Your task to perform on an android device: toggle wifi Image 0: 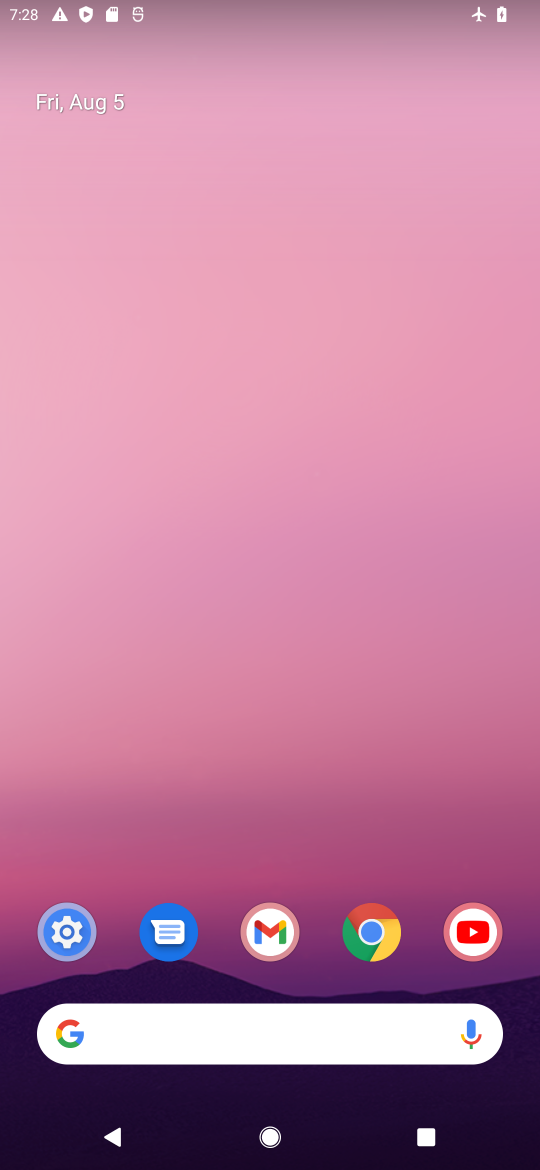
Step 0: drag from (216, 1048) to (227, 166)
Your task to perform on an android device: toggle wifi Image 1: 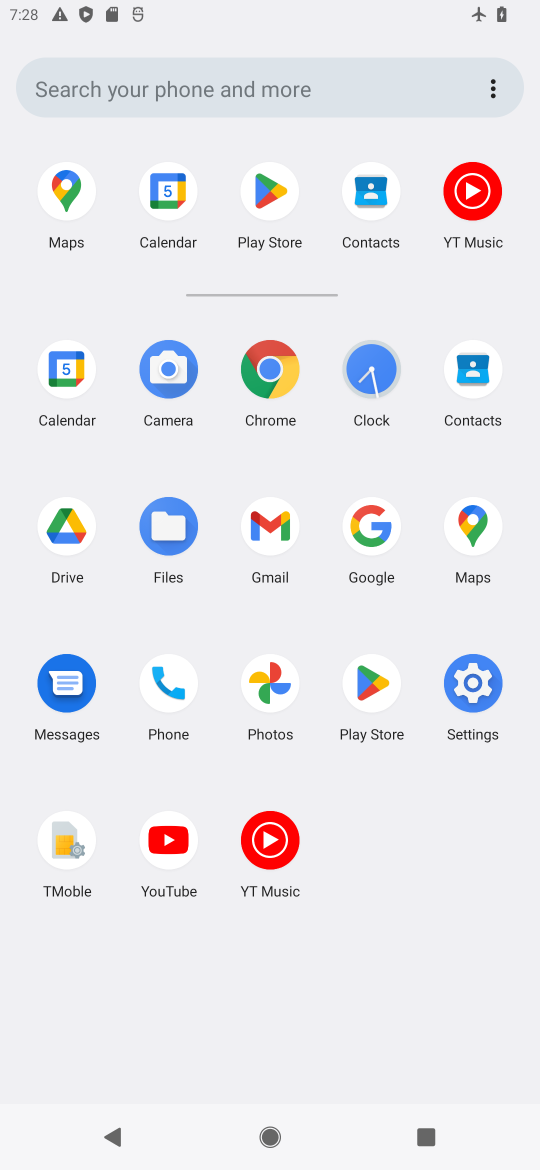
Step 1: click (474, 682)
Your task to perform on an android device: toggle wifi Image 2: 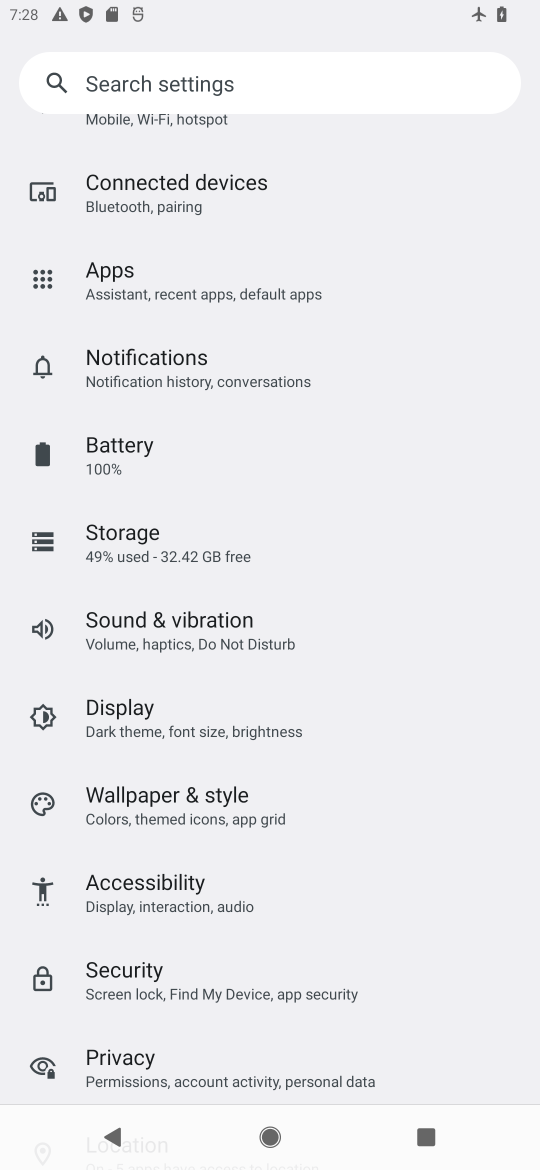
Step 2: drag from (262, 214) to (236, 759)
Your task to perform on an android device: toggle wifi Image 3: 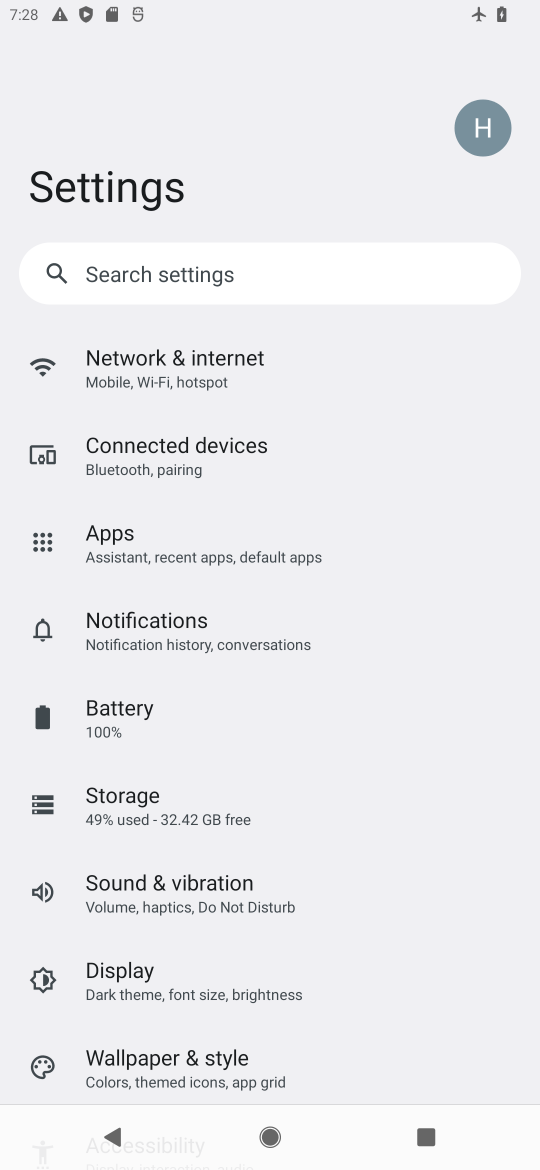
Step 3: click (201, 362)
Your task to perform on an android device: toggle wifi Image 4: 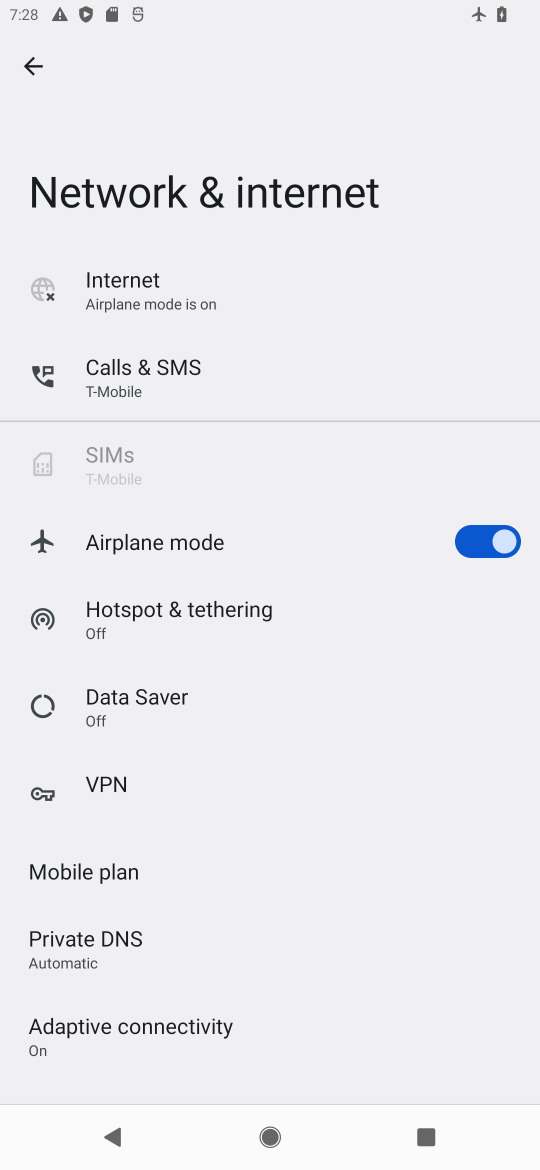
Step 4: click (175, 309)
Your task to perform on an android device: toggle wifi Image 5: 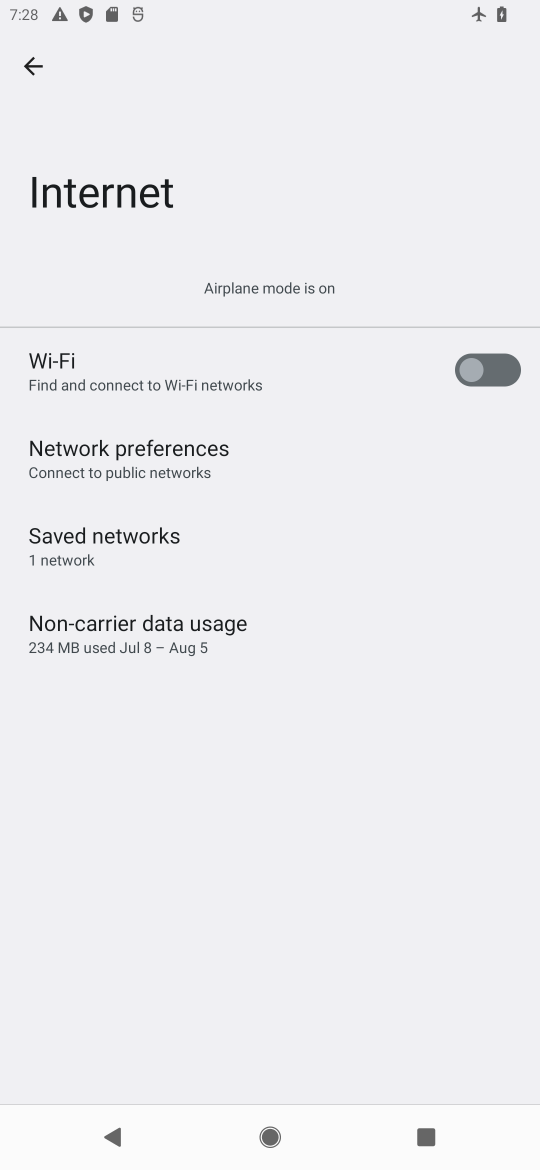
Step 5: click (464, 378)
Your task to perform on an android device: toggle wifi Image 6: 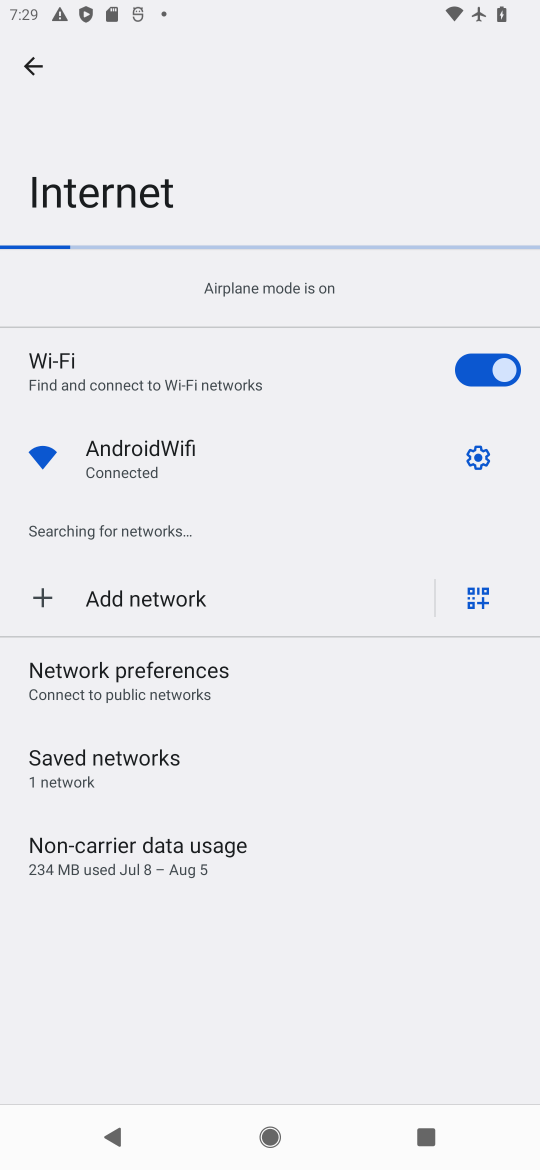
Step 6: task complete